Your task to perform on an android device: Show the shopping cart on bestbuy.com. Search for jbl flip 4 on bestbuy.com, select the first entry, and add it to the cart. Image 0: 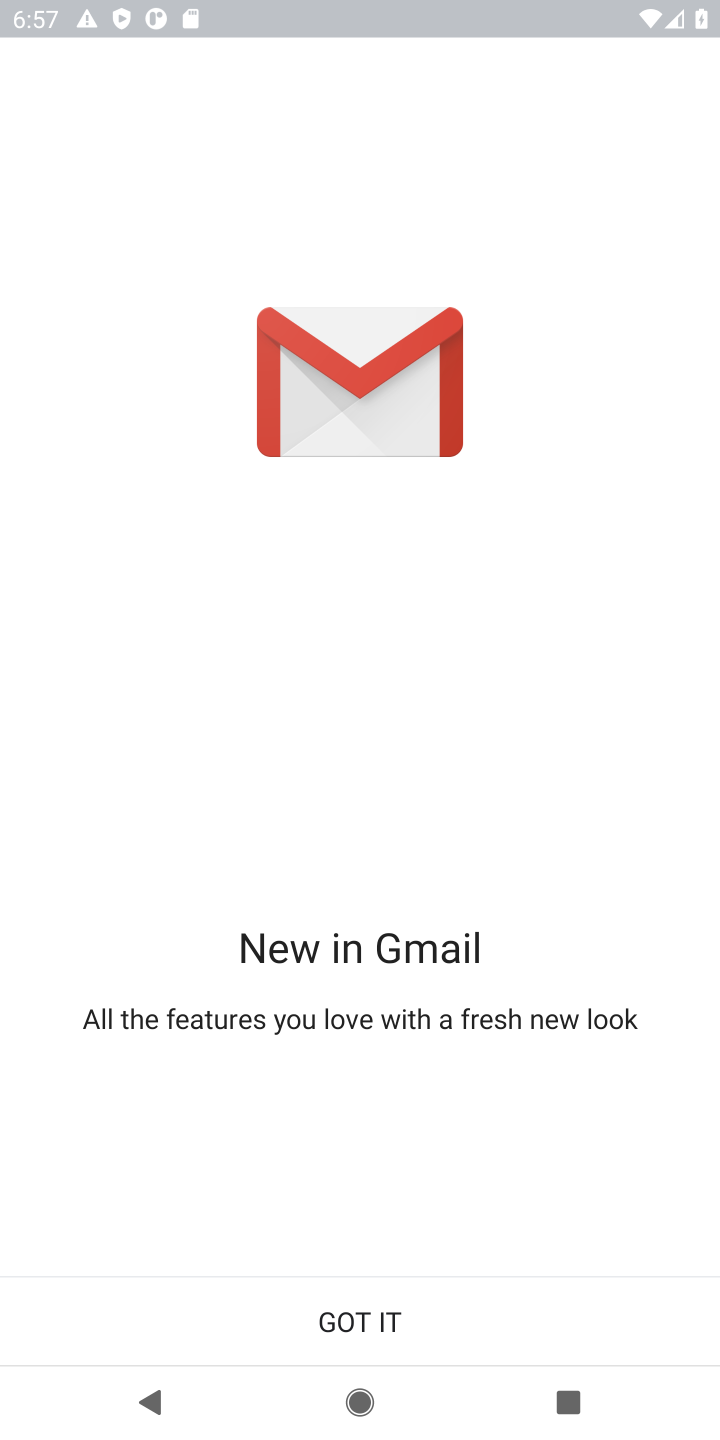
Step 0: press home button
Your task to perform on an android device: Show the shopping cart on bestbuy.com. Search for jbl flip 4 on bestbuy.com, select the first entry, and add it to the cart. Image 1: 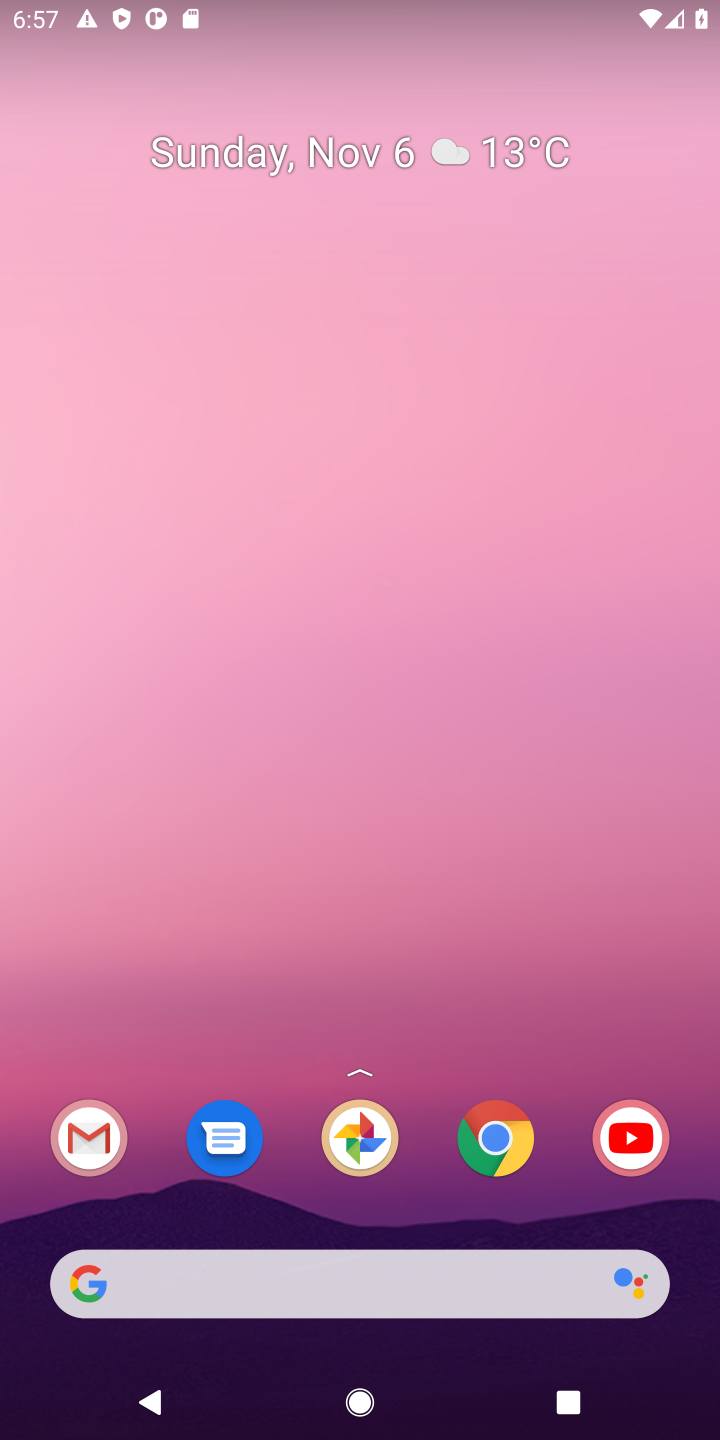
Step 1: click (513, 1128)
Your task to perform on an android device: Show the shopping cart on bestbuy.com. Search for jbl flip 4 on bestbuy.com, select the first entry, and add it to the cart. Image 2: 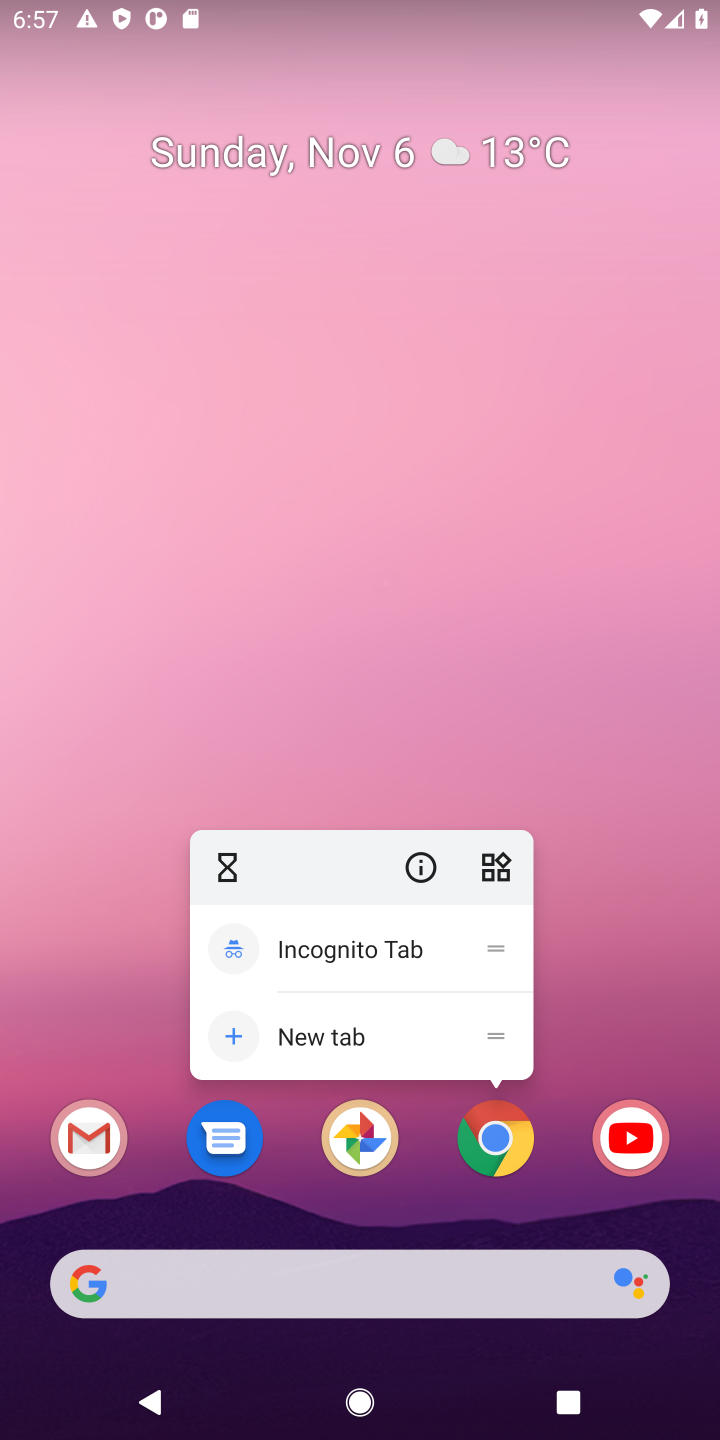
Step 2: click (475, 1157)
Your task to perform on an android device: Show the shopping cart on bestbuy.com. Search for jbl flip 4 on bestbuy.com, select the first entry, and add it to the cart. Image 3: 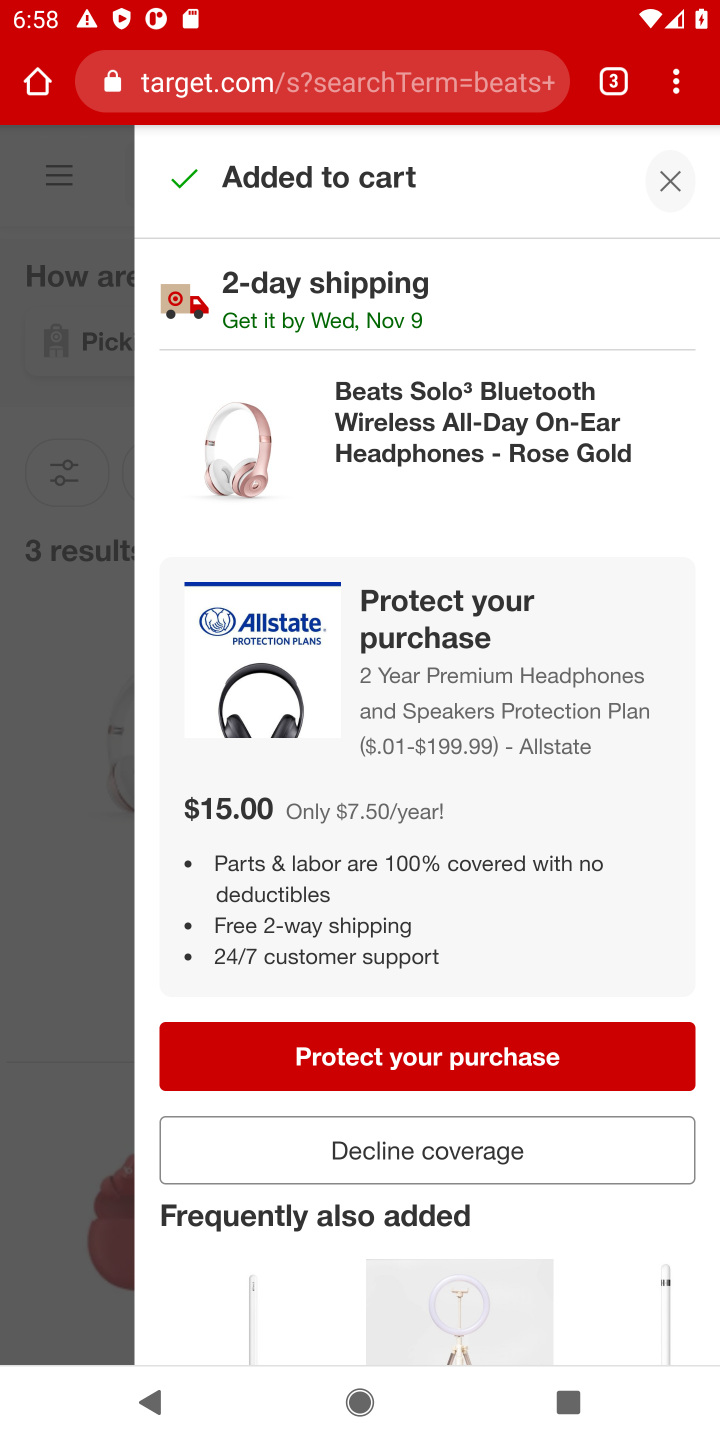
Step 3: click (660, 191)
Your task to perform on an android device: Show the shopping cart on bestbuy.com. Search for jbl flip 4 on bestbuy.com, select the first entry, and add it to the cart. Image 4: 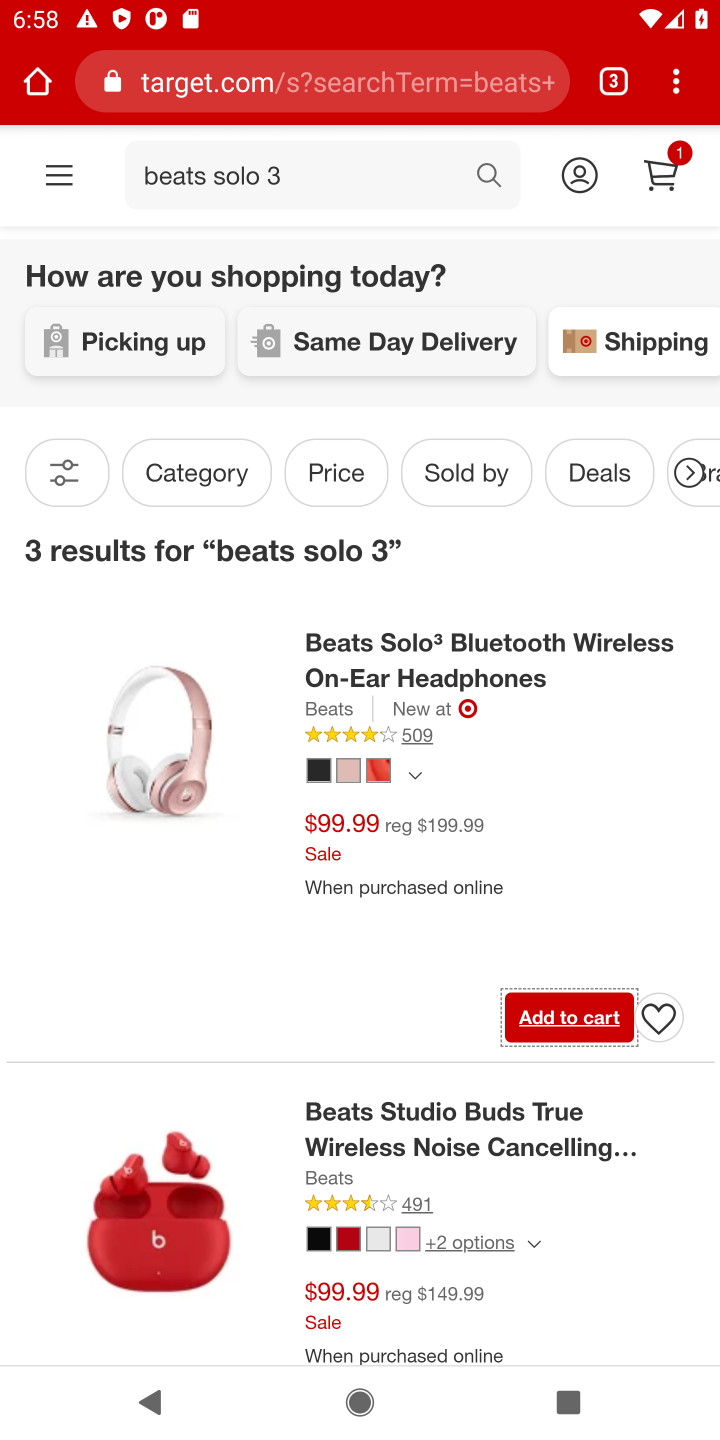
Step 4: click (624, 61)
Your task to perform on an android device: Show the shopping cart on bestbuy.com. Search for jbl flip 4 on bestbuy.com, select the first entry, and add it to the cart. Image 5: 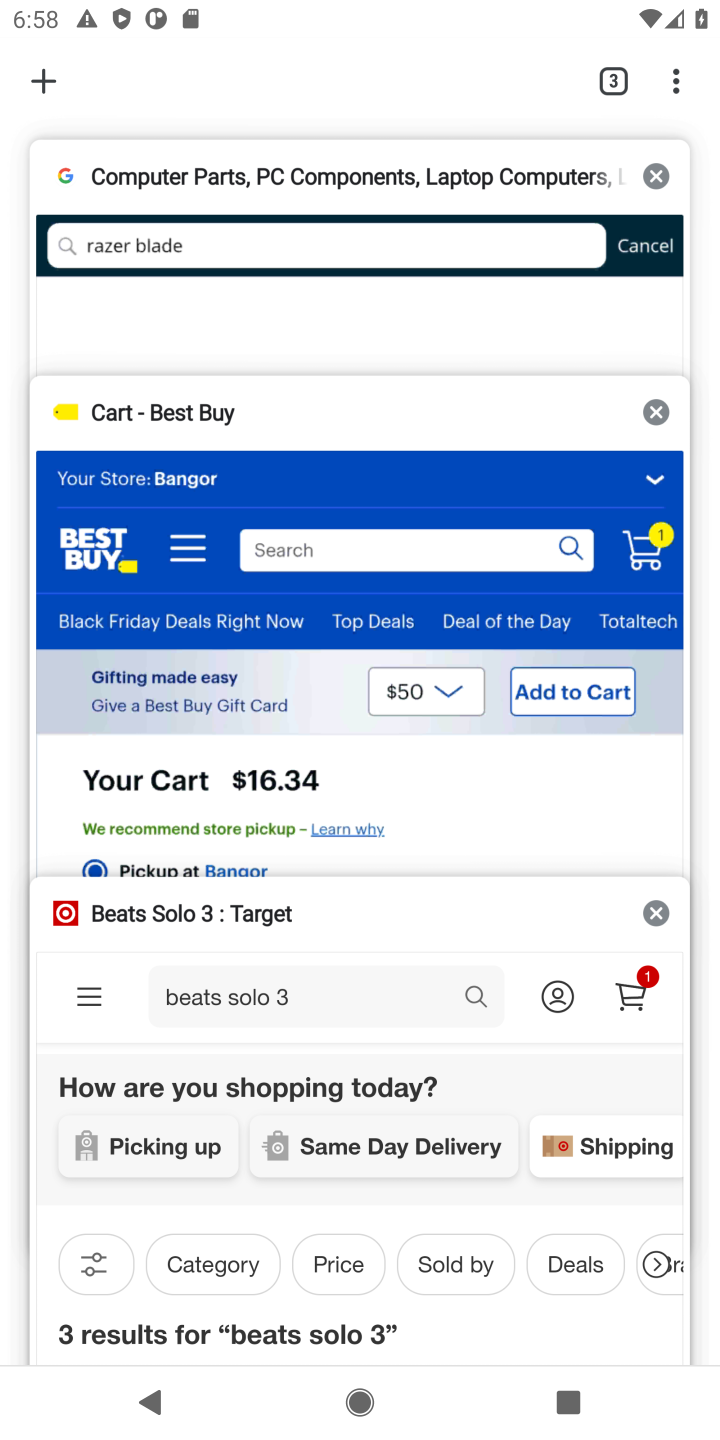
Step 5: click (328, 434)
Your task to perform on an android device: Show the shopping cart on bestbuy.com. Search for jbl flip 4 on bestbuy.com, select the first entry, and add it to the cart. Image 6: 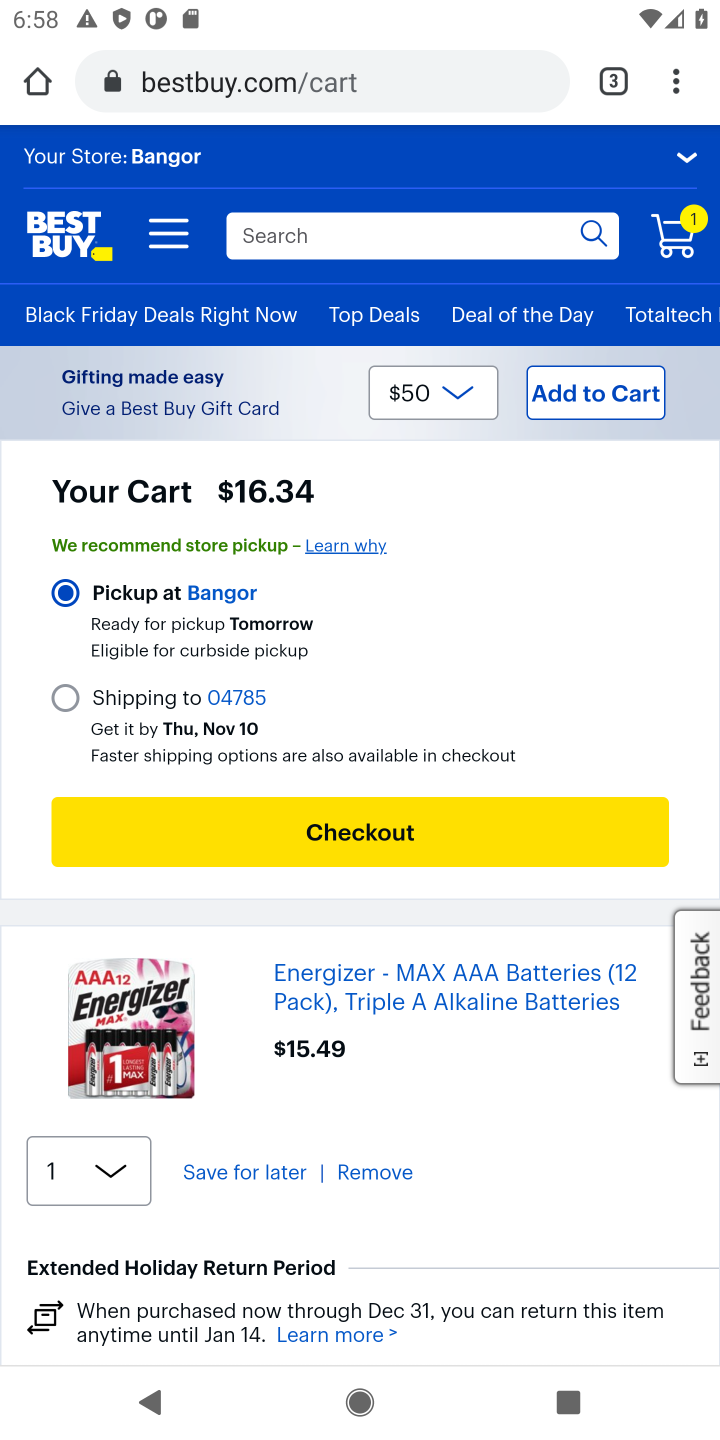
Step 6: click (346, 238)
Your task to perform on an android device: Show the shopping cart on bestbuy.com. Search for jbl flip 4 on bestbuy.com, select the first entry, and add it to the cart. Image 7: 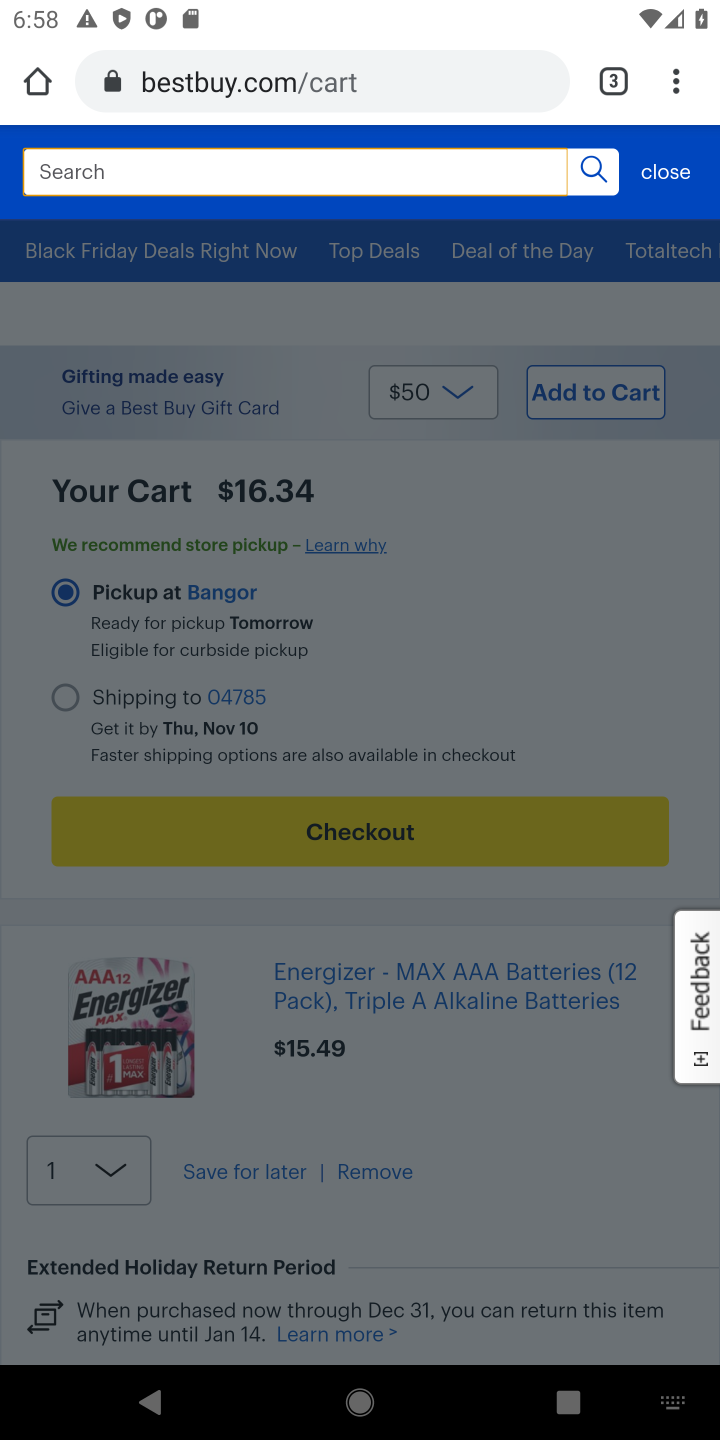
Step 7: click (107, 166)
Your task to perform on an android device: Show the shopping cart on bestbuy.com. Search for jbl flip 4 on bestbuy.com, select the first entry, and add it to the cart. Image 8: 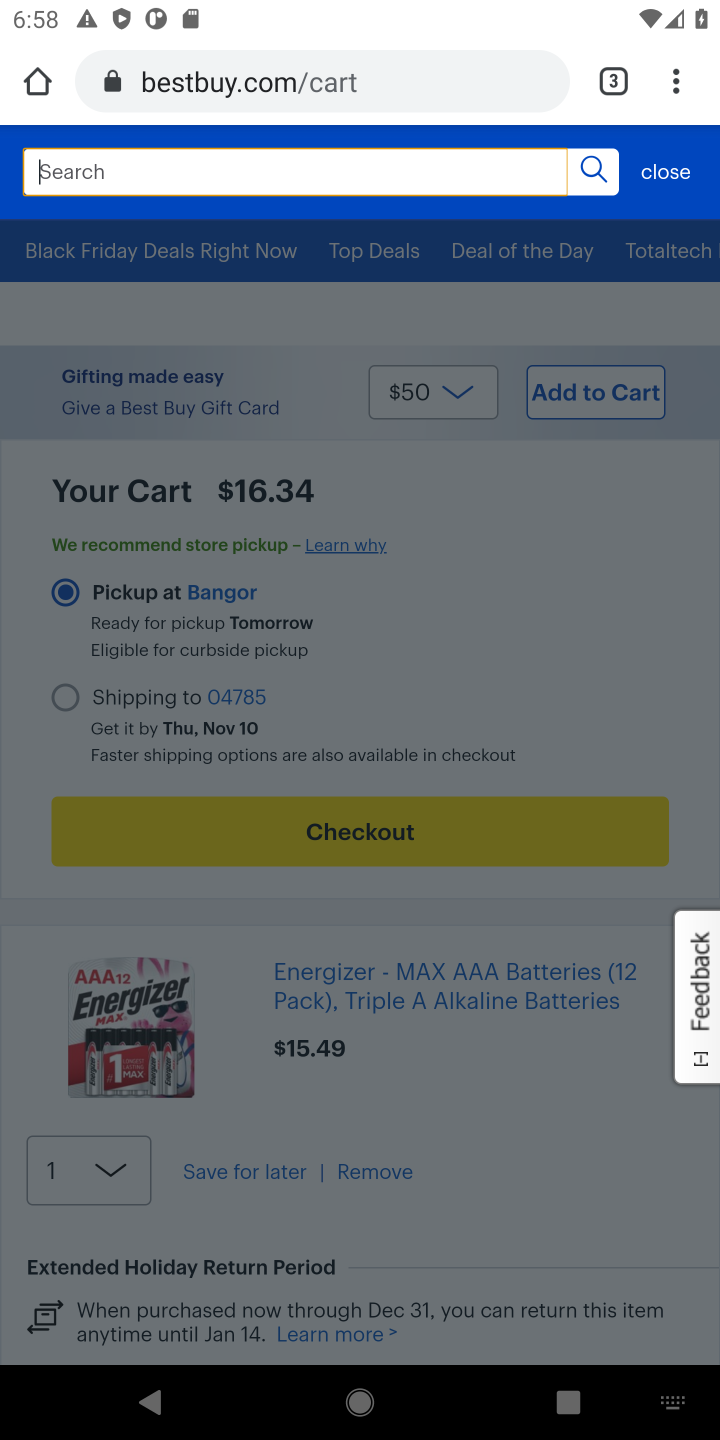
Step 8: type "jbl flip 4 "
Your task to perform on an android device: Show the shopping cart on bestbuy.com. Search for jbl flip 4 on bestbuy.com, select the first entry, and add it to the cart. Image 9: 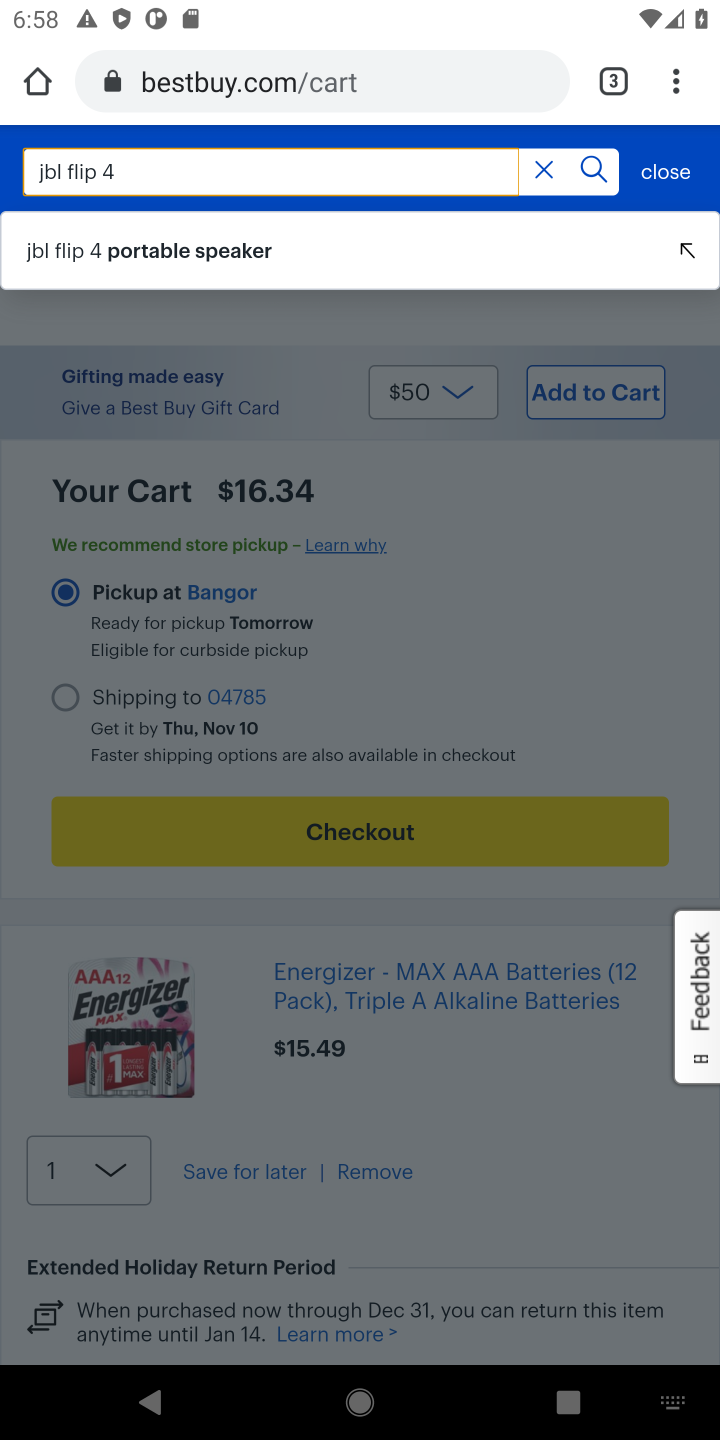
Step 9: click (285, 249)
Your task to perform on an android device: Show the shopping cart on bestbuy.com. Search for jbl flip 4 on bestbuy.com, select the first entry, and add it to the cart. Image 10: 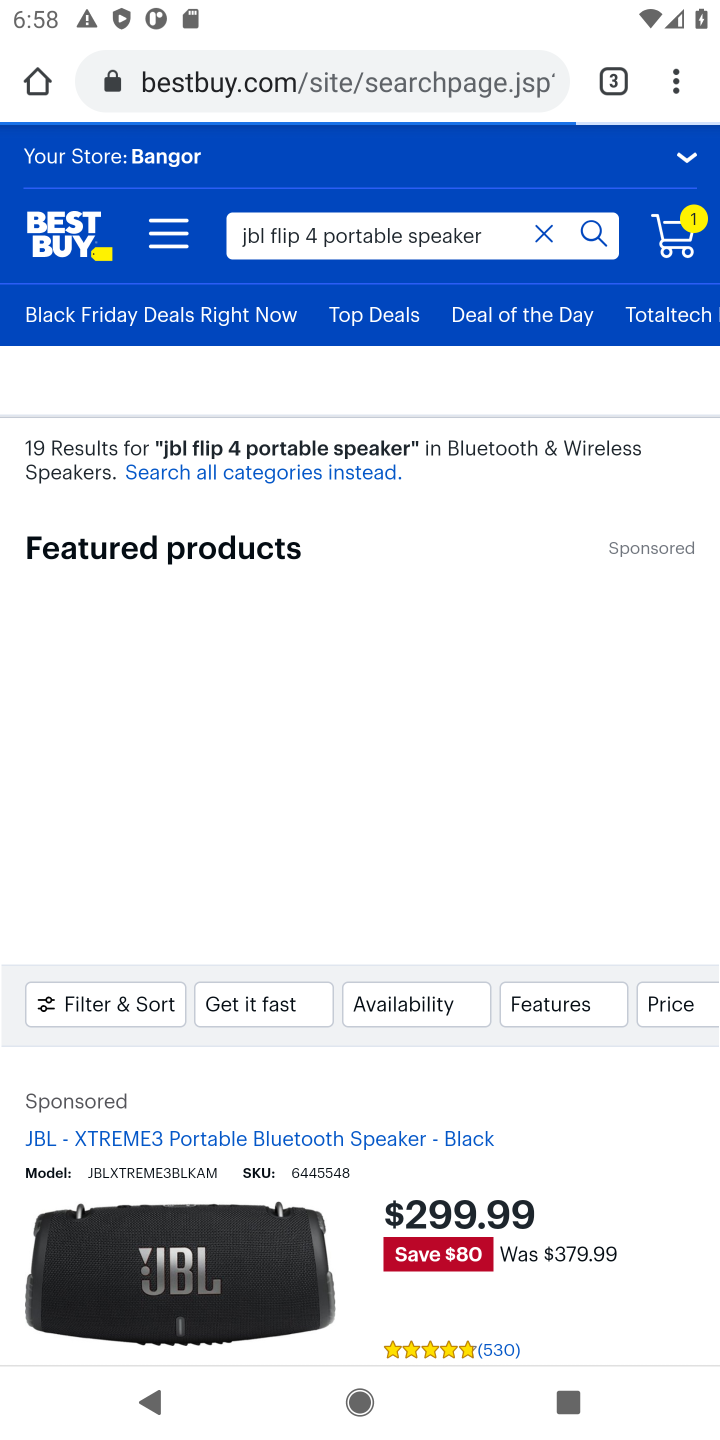
Step 10: task complete